Your task to perform on an android device: toggle notification dots Image 0: 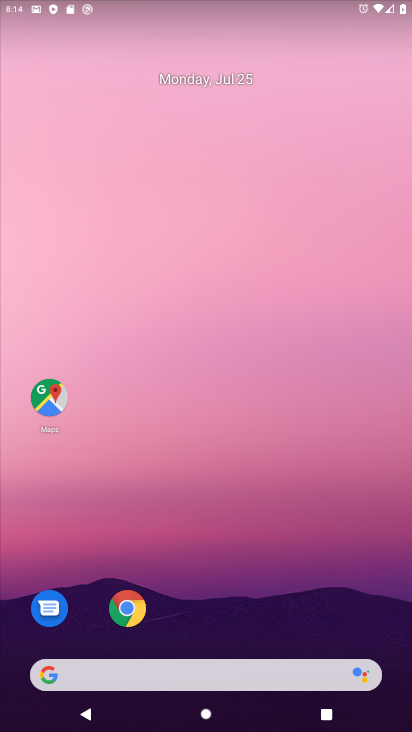
Step 0: drag from (149, 660) to (264, 81)
Your task to perform on an android device: toggle notification dots Image 1: 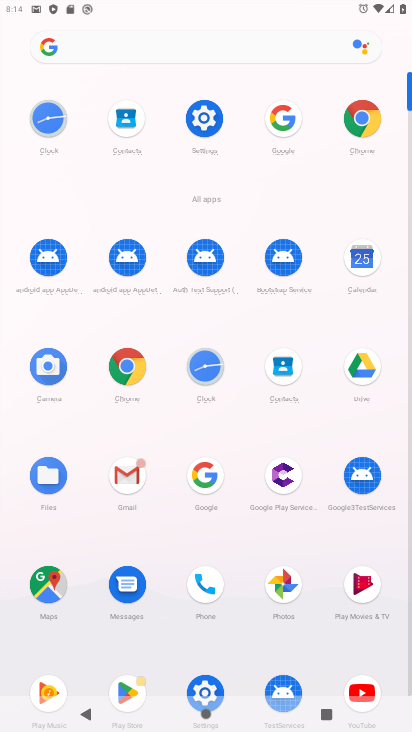
Step 1: click (203, 120)
Your task to perform on an android device: toggle notification dots Image 2: 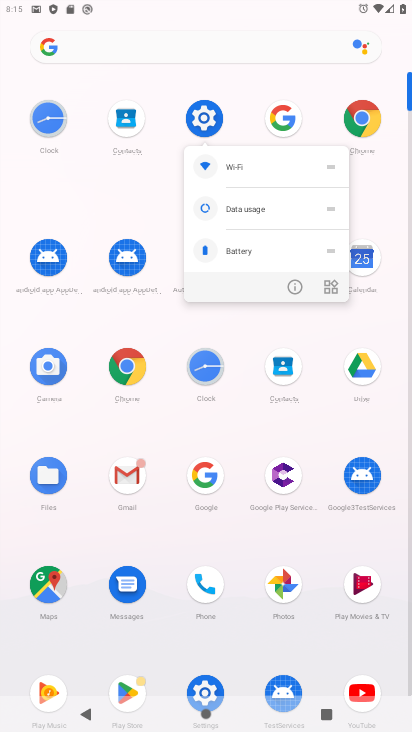
Step 2: click (204, 118)
Your task to perform on an android device: toggle notification dots Image 3: 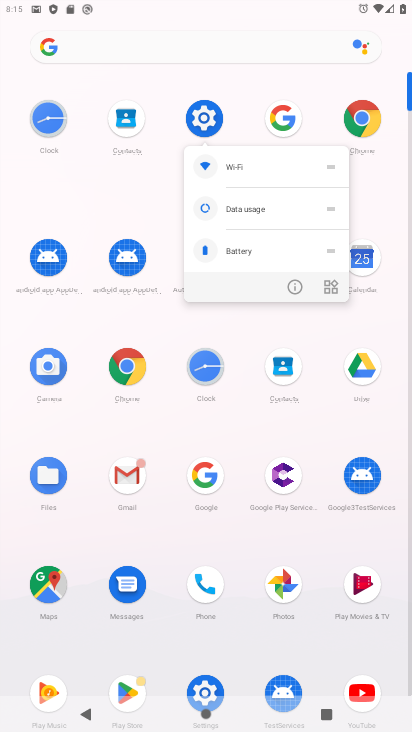
Step 3: click (204, 118)
Your task to perform on an android device: toggle notification dots Image 4: 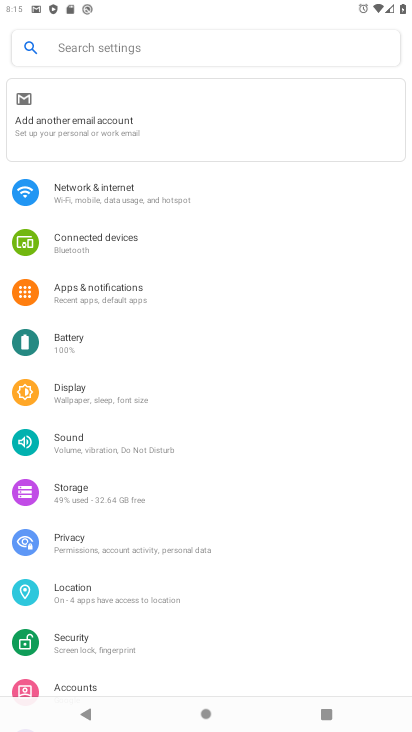
Step 4: click (119, 296)
Your task to perform on an android device: toggle notification dots Image 5: 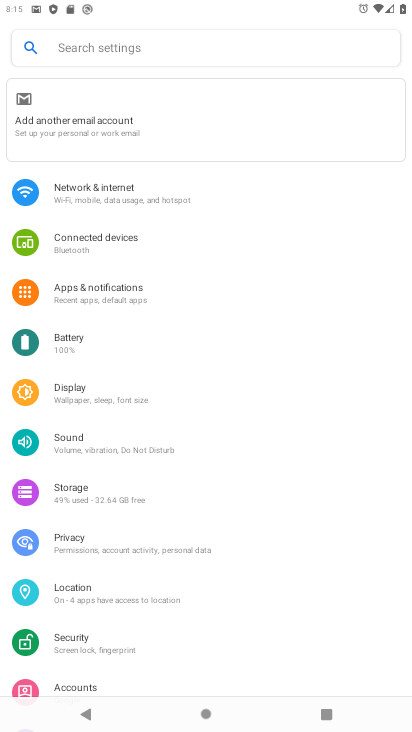
Step 5: click (119, 296)
Your task to perform on an android device: toggle notification dots Image 6: 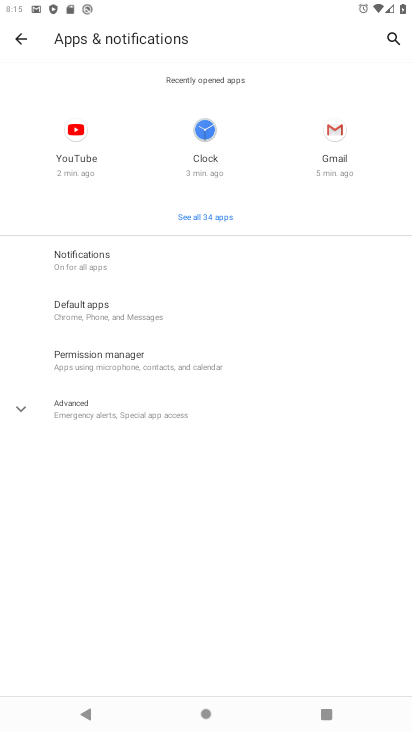
Step 6: click (127, 259)
Your task to perform on an android device: toggle notification dots Image 7: 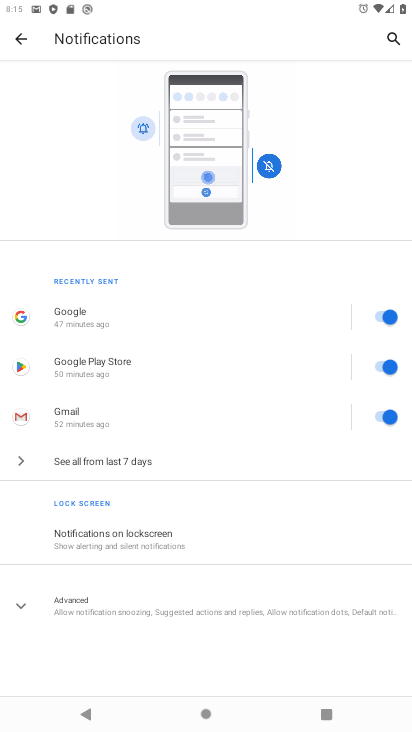
Step 7: click (144, 607)
Your task to perform on an android device: toggle notification dots Image 8: 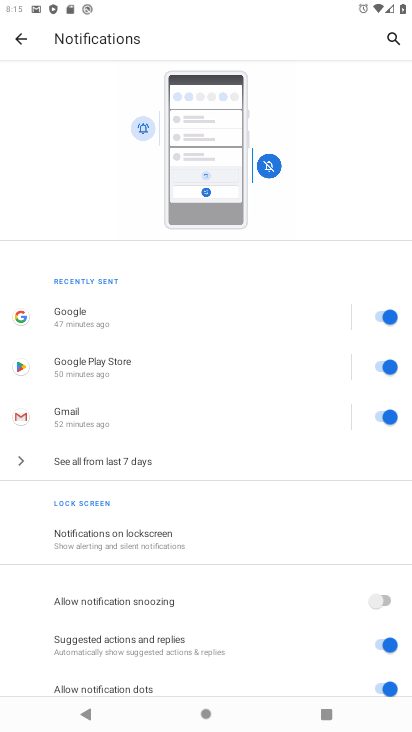
Step 8: click (392, 687)
Your task to perform on an android device: toggle notification dots Image 9: 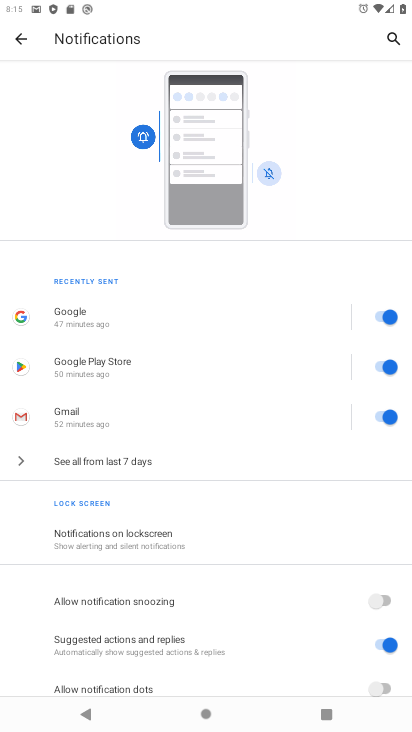
Step 9: task complete